Your task to perform on an android device: Open display settings Image 0: 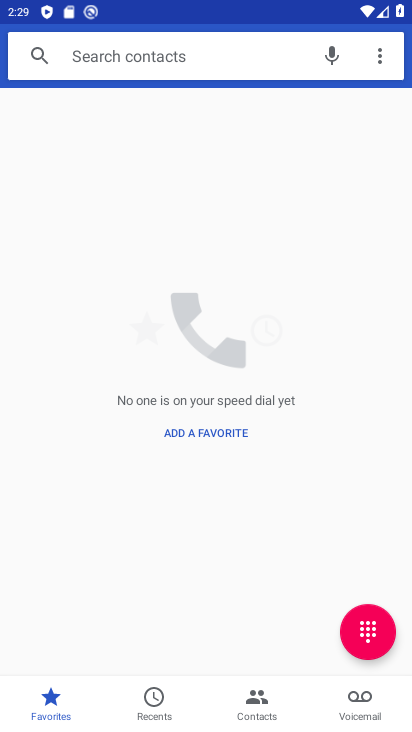
Step 0: press home button
Your task to perform on an android device: Open display settings Image 1: 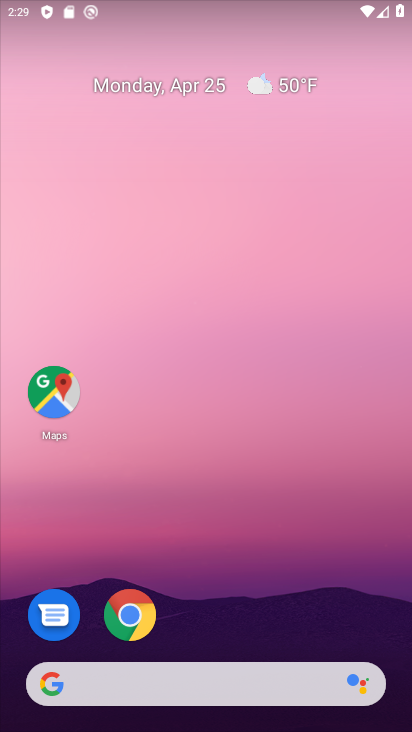
Step 1: drag from (223, 728) to (226, 85)
Your task to perform on an android device: Open display settings Image 2: 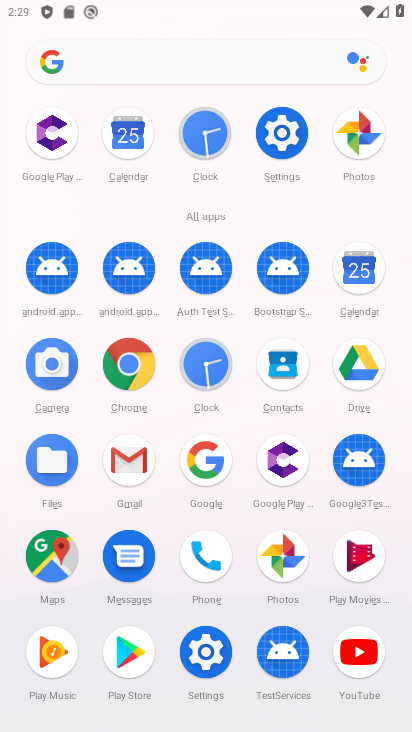
Step 2: click (281, 142)
Your task to perform on an android device: Open display settings Image 3: 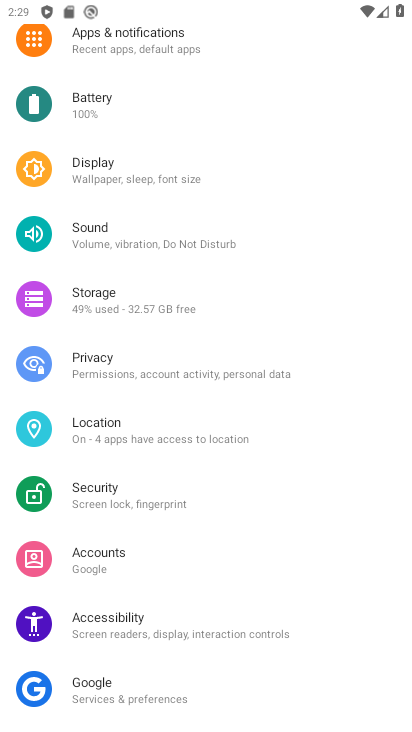
Step 3: click (93, 178)
Your task to perform on an android device: Open display settings Image 4: 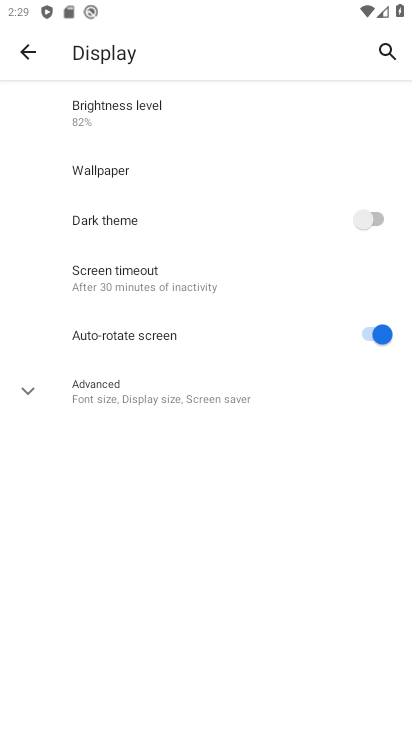
Step 4: task complete